Your task to perform on an android device: Open Wikipedia Image 0: 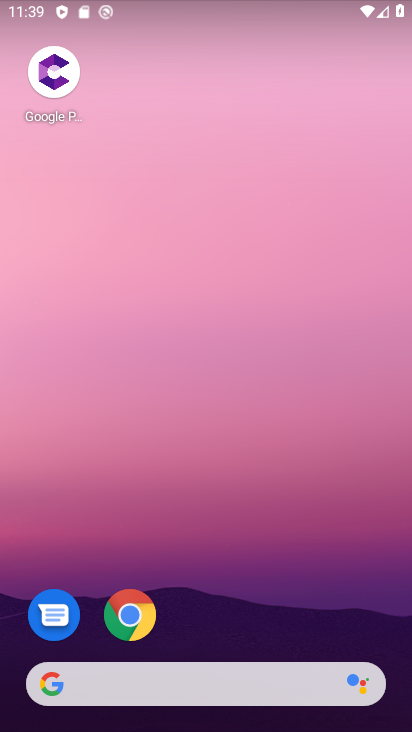
Step 0: click (293, 163)
Your task to perform on an android device: Open Wikipedia Image 1: 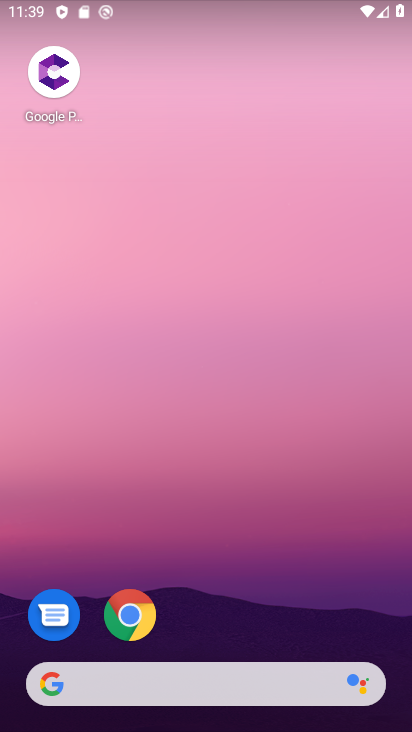
Step 1: drag from (310, 449) to (288, 124)
Your task to perform on an android device: Open Wikipedia Image 2: 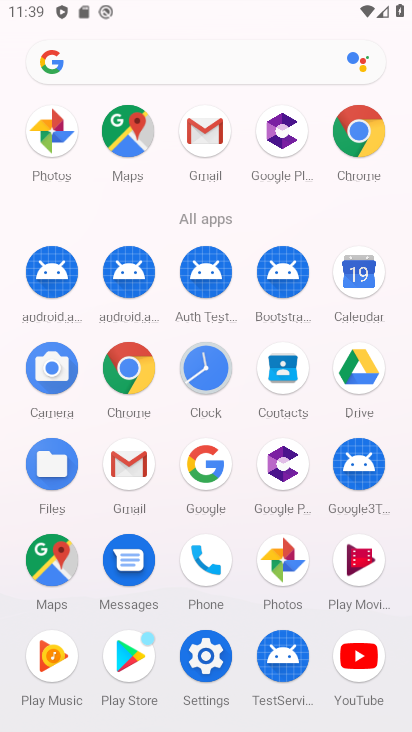
Step 2: click (367, 136)
Your task to perform on an android device: Open Wikipedia Image 3: 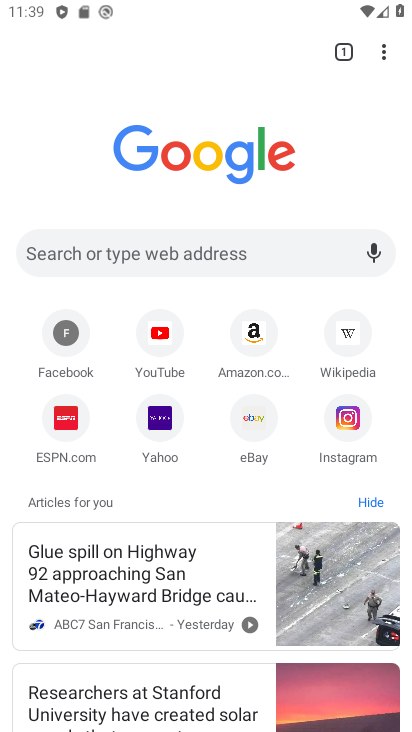
Step 3: click (130, 241)
Your task to perform on an android device: Open Wikipedia Image 4: 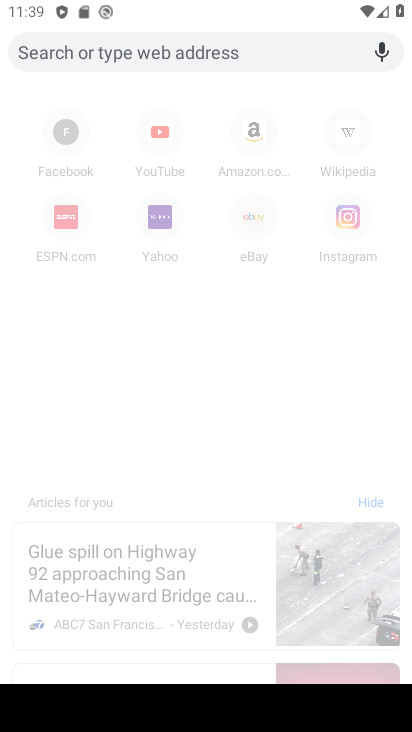
Step 4: type "Wikipedia"
Your task to perform on an android device: Open Wikipedia Image 5: 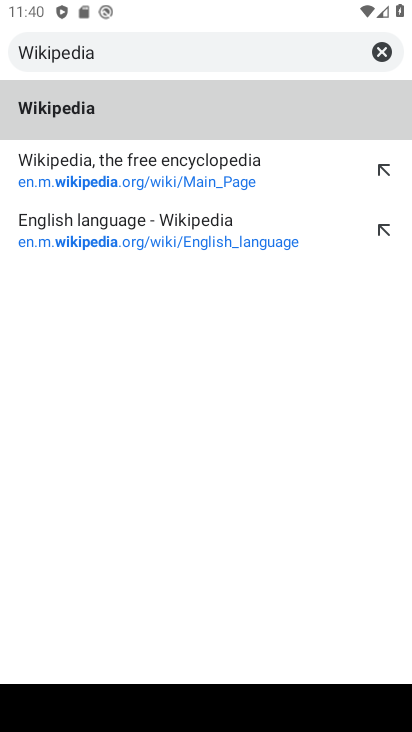
Step 5: click (51, 100)
Your task to perform on an android device: Open Wikipedia Image 6: 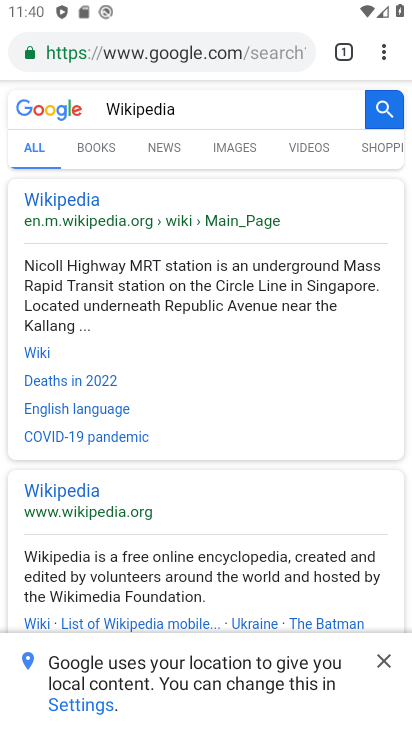
Step 6: task complete